Your task to perform on an android device: What is the news today? Image 0: 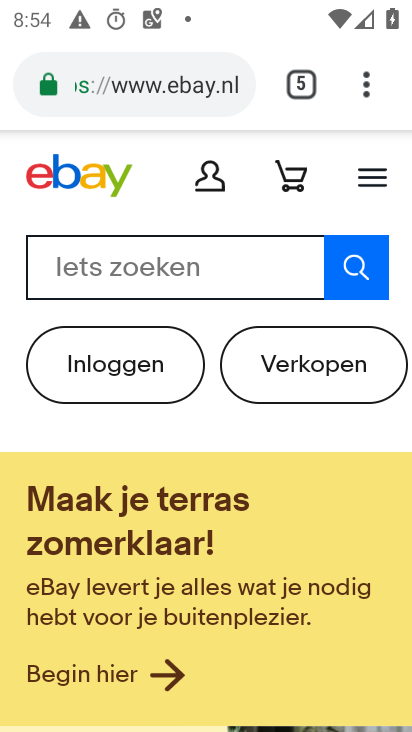
Step 0: press home button
Your task to perform on an android device: What is the news today? Image 1: 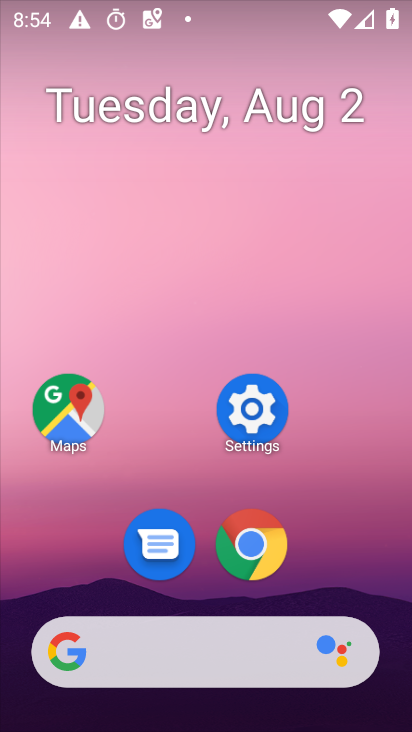
Step 1: click (141, 644)
Your task to perform on an android device: What is the news today? Image 2: 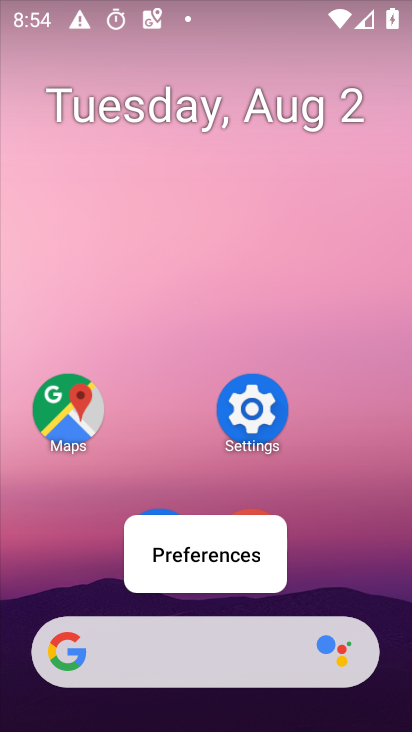
Step 2: click (161, 646)
Your task to perform on an android device: What is the news today? Image 3: 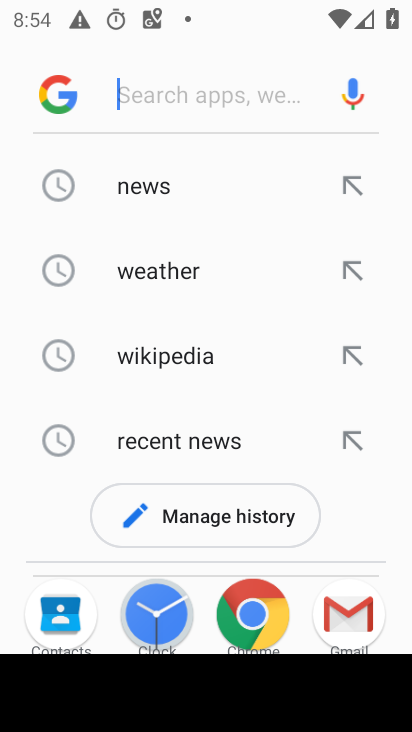
Step 3: click (137, 193)
Your task to perform on an android device: What is the news today? Image 4: 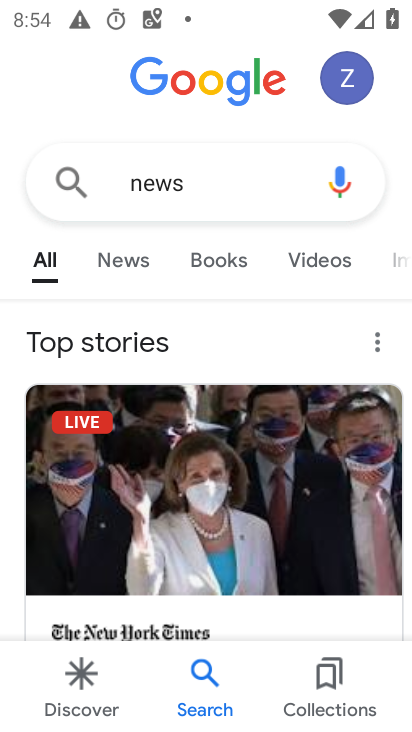
Step 4: click (126, 259)
Your task to perform on an android device: What is the news today? Image 5: 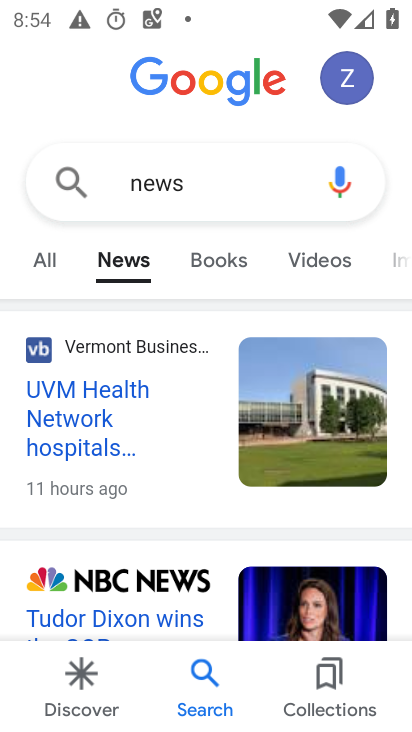
Step 5: task complete